Your task to perform on an android device: open a new tab in the chrome app Image 0: 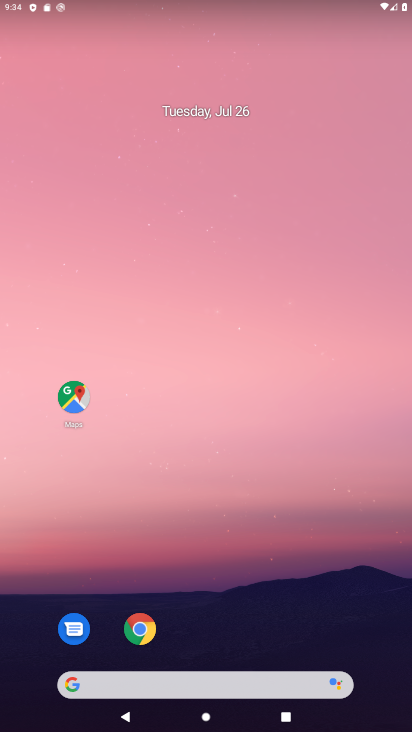
Step 0: click (143, 629)
Your task to perform on an android device: open a new tab in the chrome app Image 1: 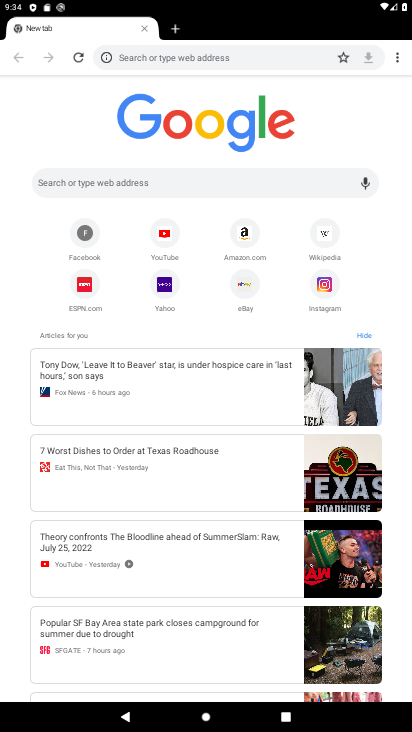
Step 1: click (170, 34)
Your task to perform on an android device: open a new tab in the chrome app Image 2: 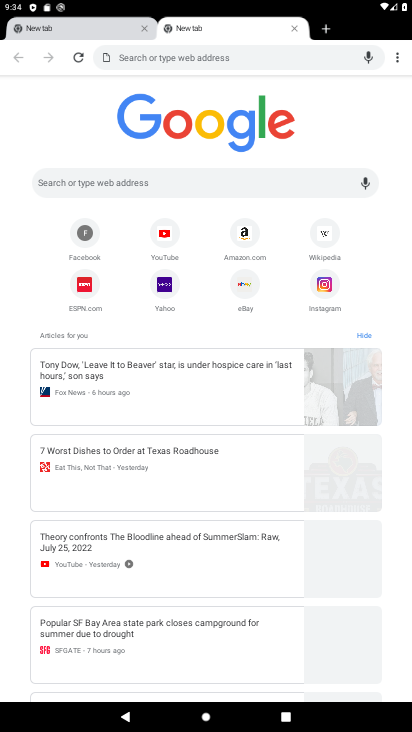
Step 2: task complete